Your task to perform on an android device: toggle notification dots Image 0: 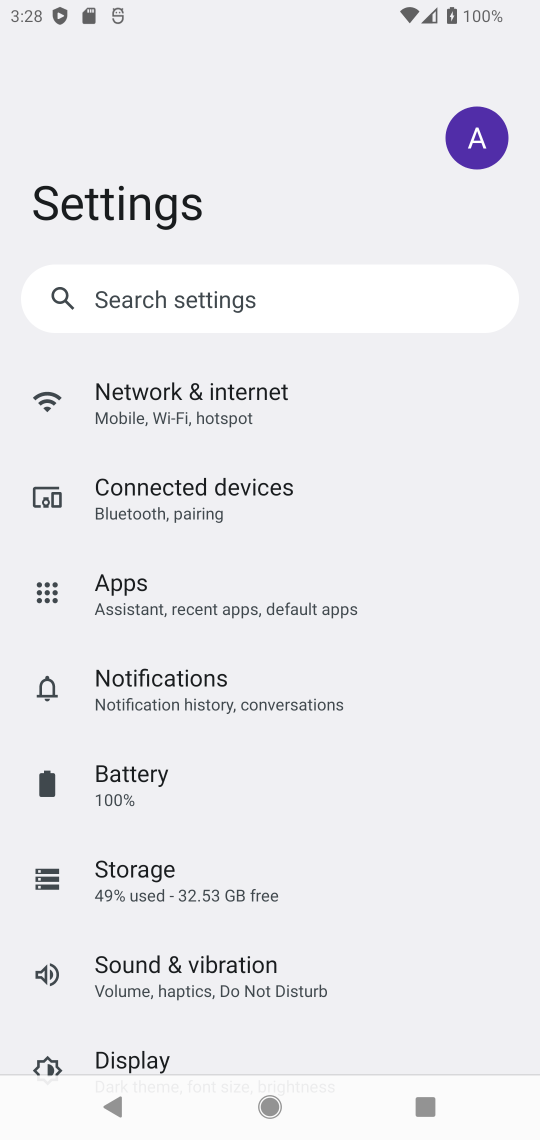
Step 0: click (143, 675)
Your task to perform on an android device: toggle notification dots Image 1: 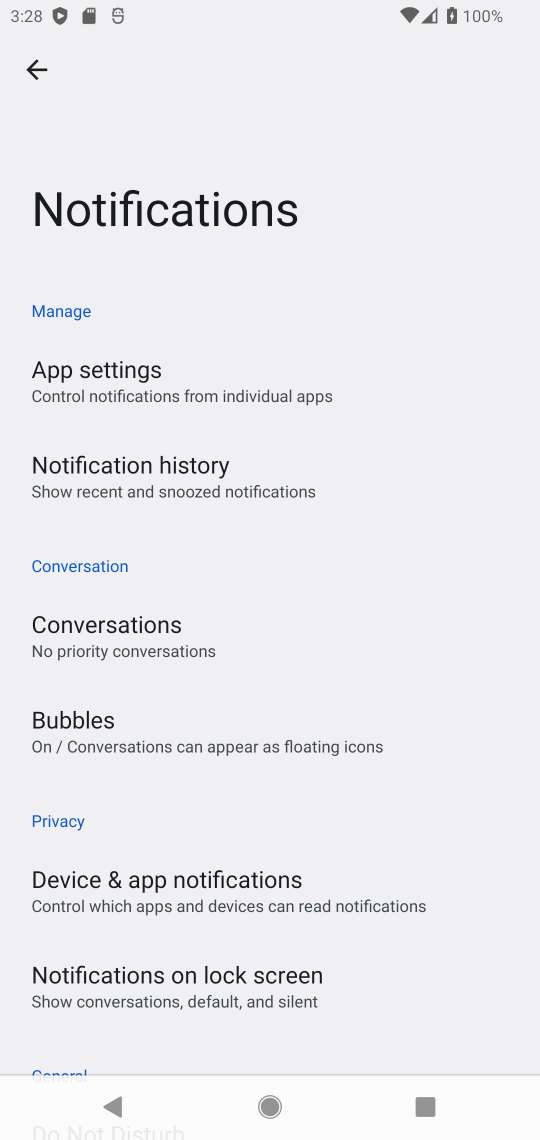
Step 1: click (480, 1047)
Your task to perform on an android device: toggle notification dots Image 2: 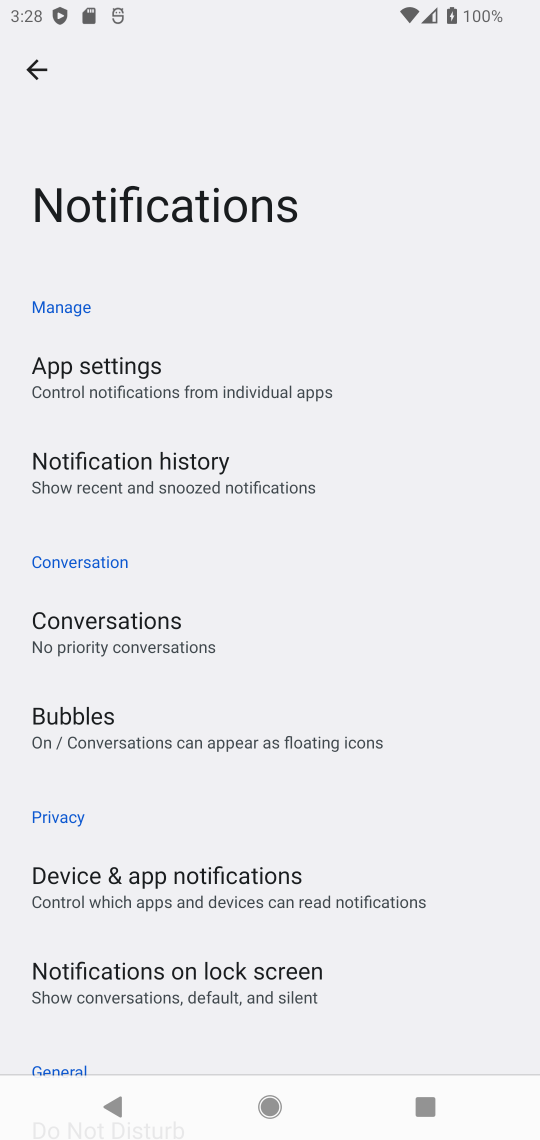
Step 2: click (482, 896)
Your task to perform on an android device: toggle notification dots Image 3: 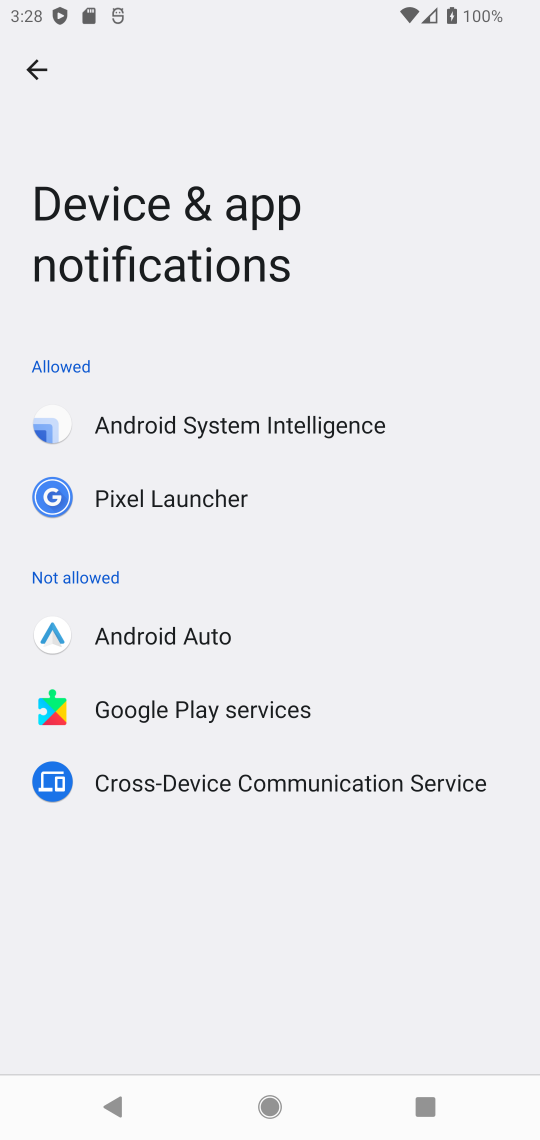
Step 3: click (29, 69)
Your task to perform on an android device: toggle notification dots Image 4: 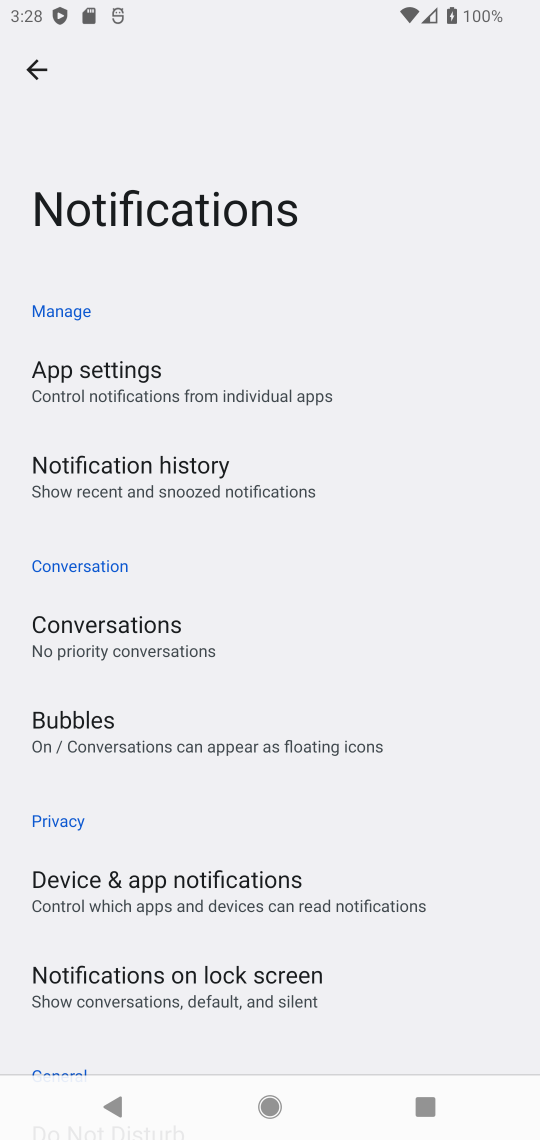
Step 4: drag from (537, 360) to (534, 282)
Your task to perform on an android device: toggle notification dots Image 5: 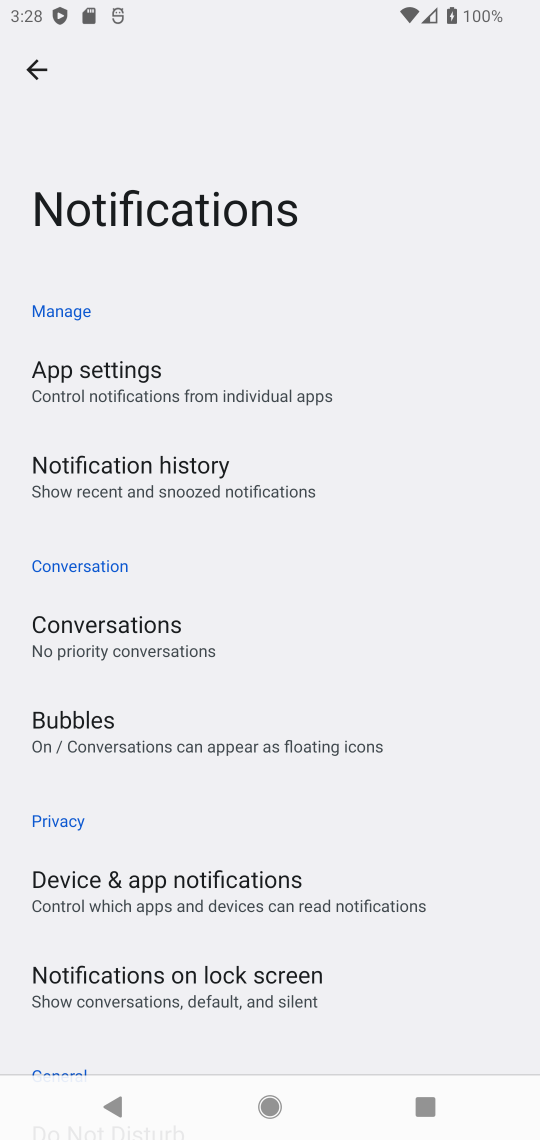
Step 5: click (426, 290)
Your task to perform on an android device: toggle notification dots Image 6: 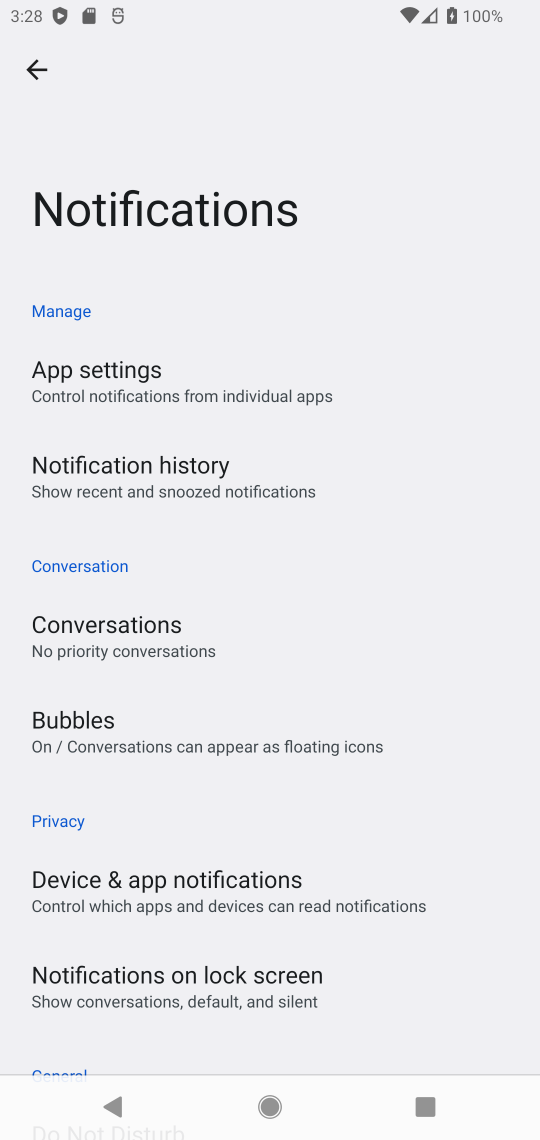
Step 6: task complete